Your task to perform on an android device: toggle translation in the chrome app Image 0: 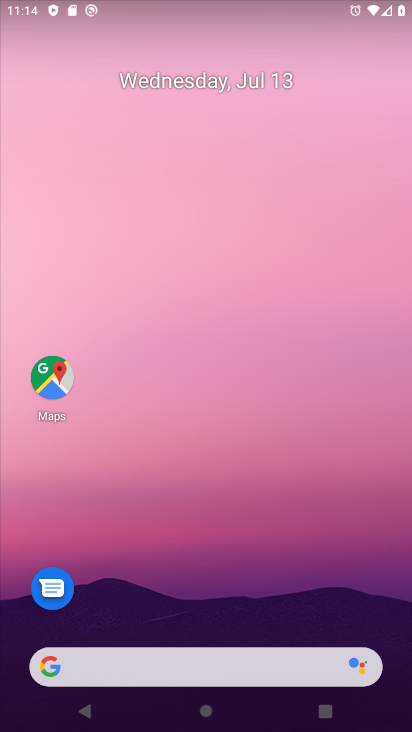
Step 0: drag from (144, 506) to (344, 344)
Your task to perform on an android device: toggle translation in the chrome app Image 1: 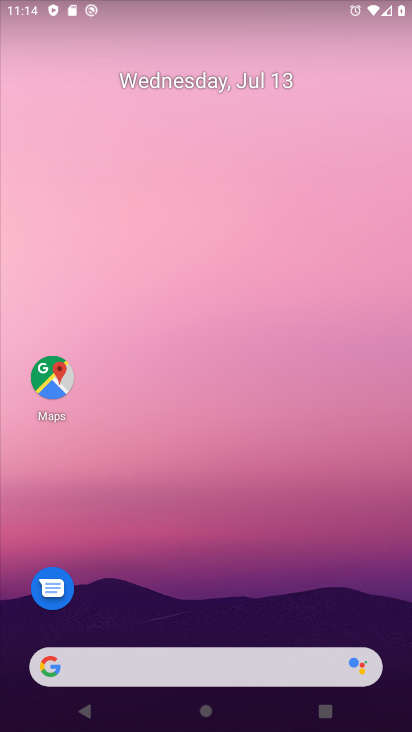
Step 1: drag from (272, 695) to (309, 0)
Your task to perform on an android device: toggle translation in the chrome app Image 2: 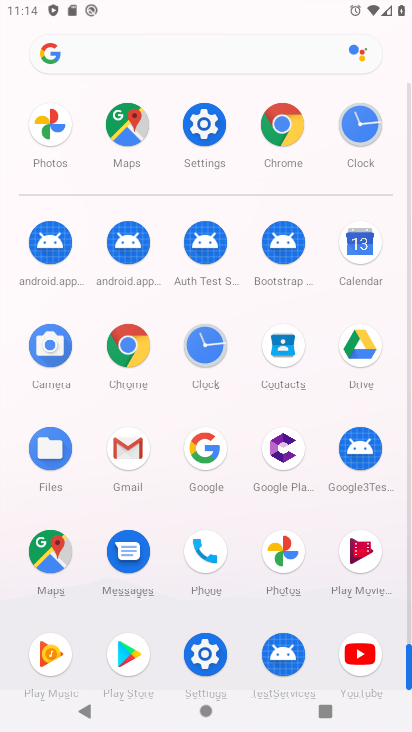
Step 2: click (281, 123)
Your task to perform on an android device: toggle translation in the chrome app Image 3: 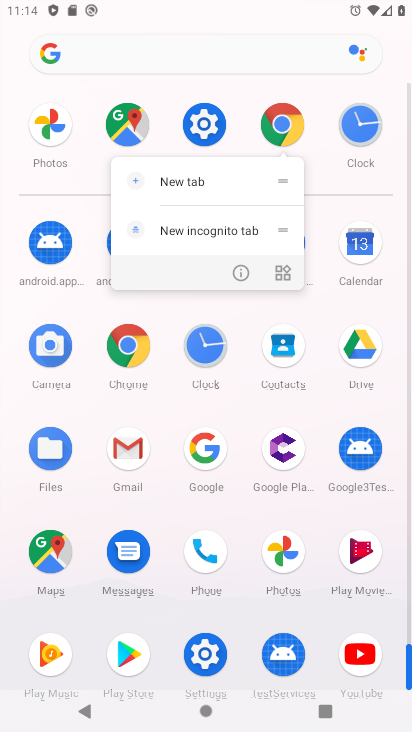
Step 3: click (282, 125)
Your task to perform on an android device: toggle translation in the chrome app Image 4: 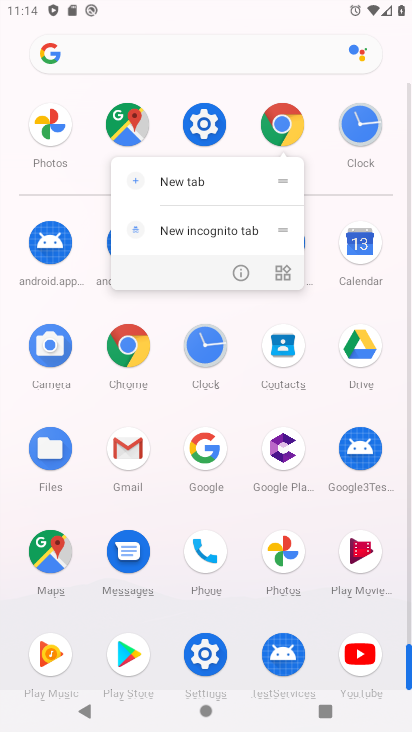
Step 4: click (282, 125)
Your task to perform on an android device: toggle translation in the chrome app Image 5: 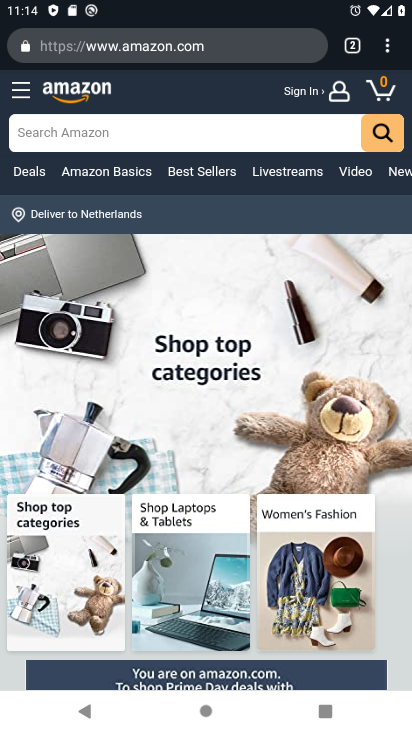
Step 5: click (390, 46)
Your task to perform on an android device: toggle translation in the chrome app Image 6: 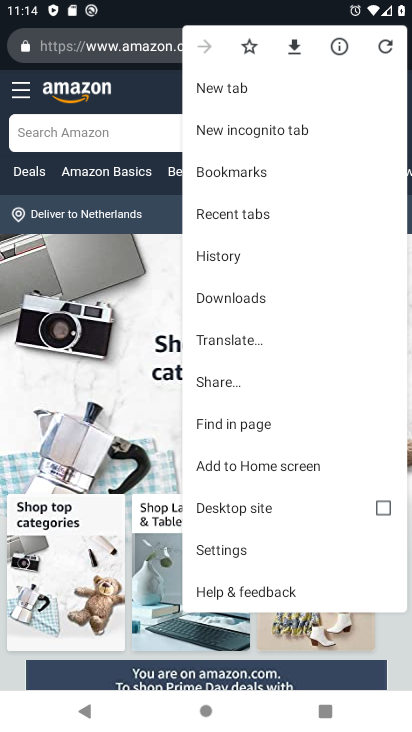
Step 6: click (266, 549)
Your task to perform on an android device: toggle translation in the chrome app Image 7: 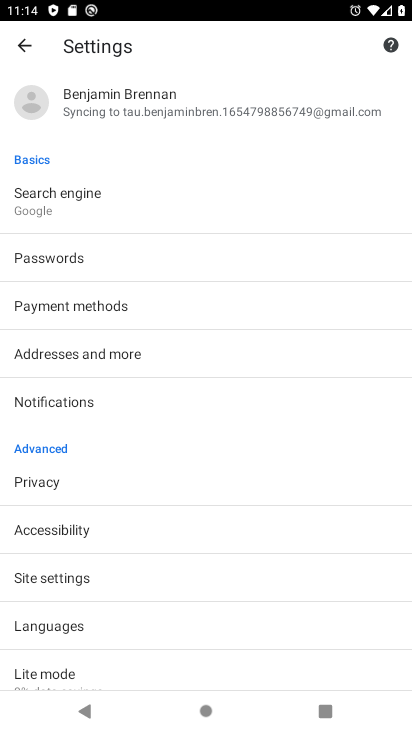
Step 7: click (69, 631)
Your task to perform on an android device: toggle translation in the chrome app Image 8: 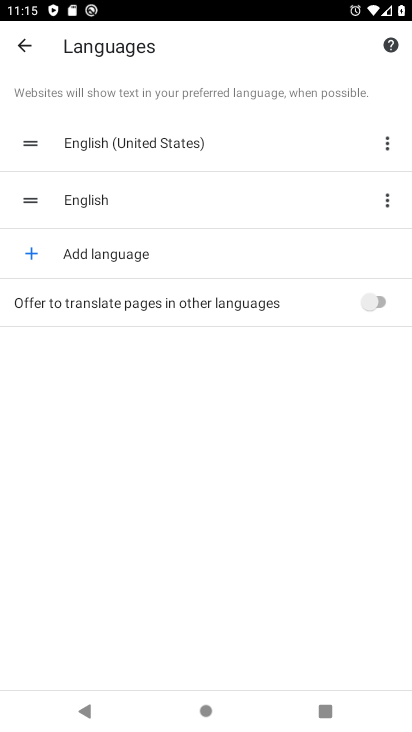
Step 8: click (370, 302)
Your task to perform on an android device: toggle translation in the chrome app Image 9: 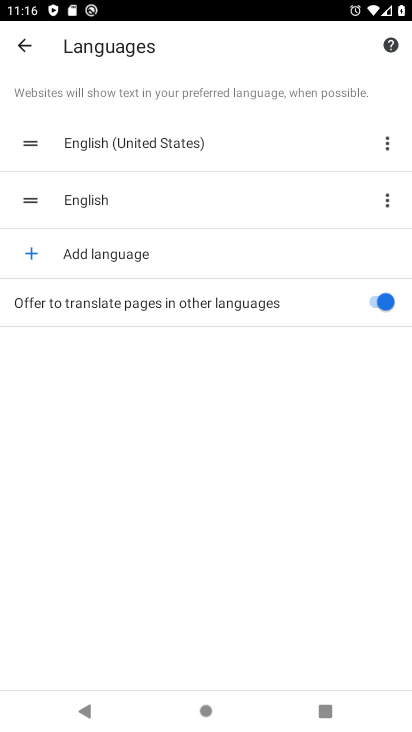
Step 9: task complete